Your task to perform on an android device: add a label to a message in the gmail app Image 0: 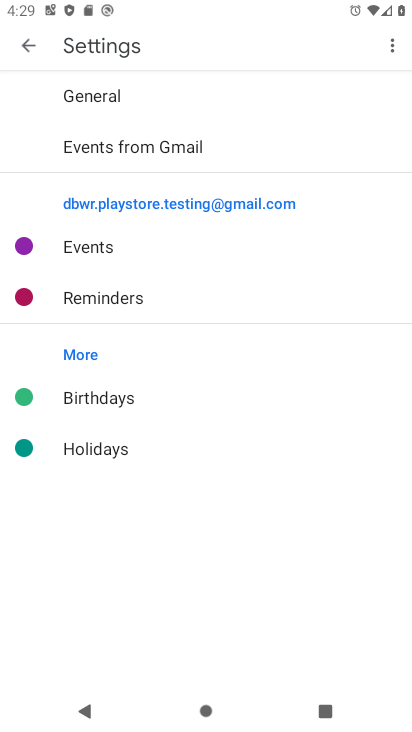
Step 0: press home button
Your task to perform on an android device: add a label to a message in the gmail app Image 1: 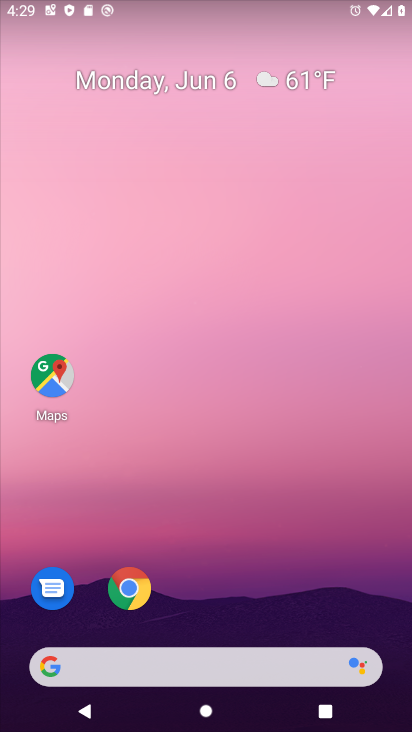
Step 1: drag from (264, 617) to (212, 86)
Your task to perform on an android device: add a label to a message in the gmail app Image 2: 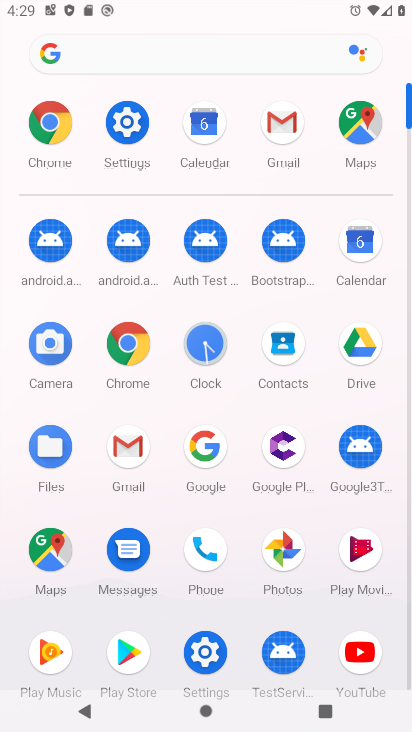
Step 2: click (286, 134)
Your task to perform on an android device: add a label to a message in the gmail app Image 3: 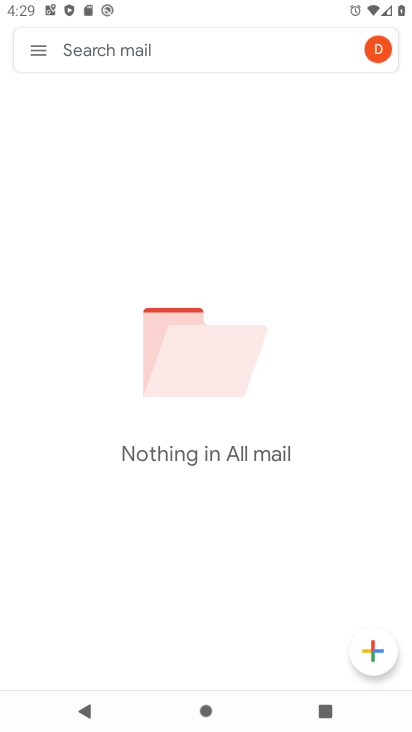
Step 3: task complete